Your task to perform on an android device: move an email to a new category in the gmail app Image 0: 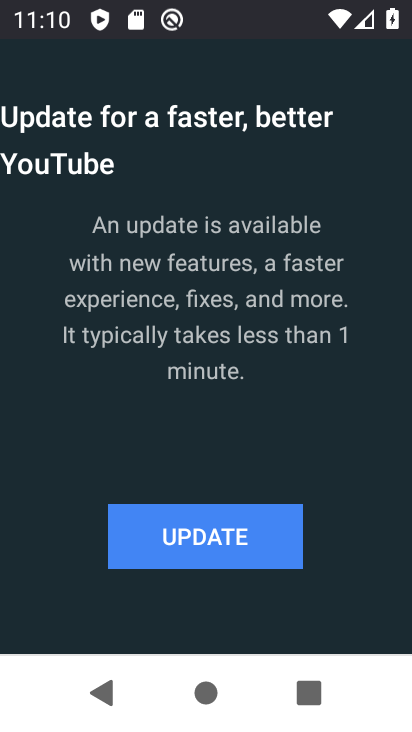
Step 0: press back button
Your task to perform on an android device: move an email to a new category in the gmail app Image 1: 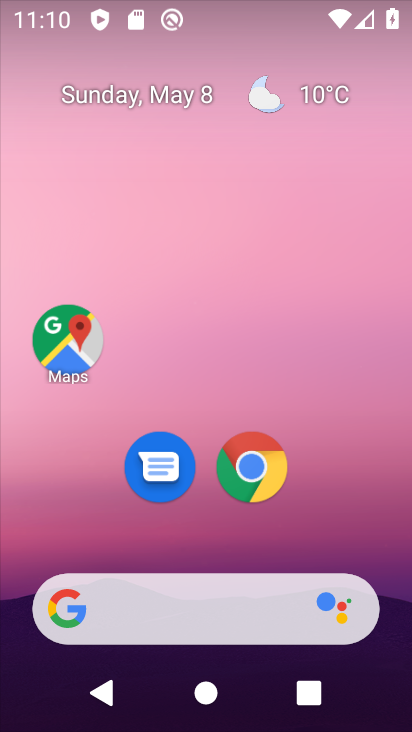
Step 1: drag from (360, 548) to (300, 20)
Your task to perform on an android device: move an email to a new category in the gmail app Image 2: 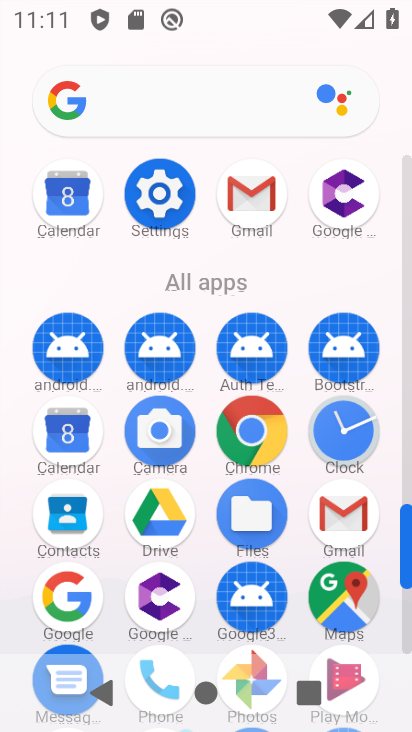
Step 2: click (254, 209)
Your task to perform on an android device: move an email to a new category in the gmail app Image 3: 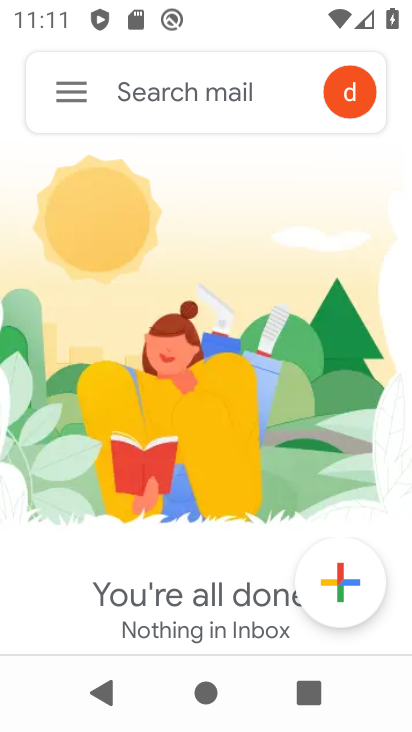
Step 3: click (75, 92)
Your task to perform on an android device: move an email to a new category in the gmail app Image 4: 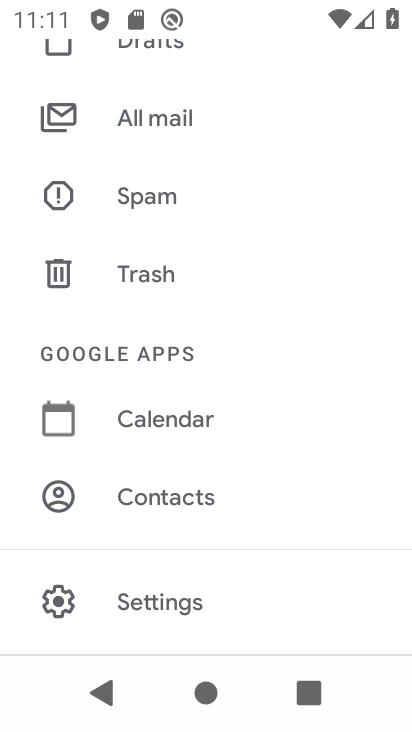
Step 4: click (175, 112)
Your task to perform on an android device: move an email to a new category in the gmail app Image 5: 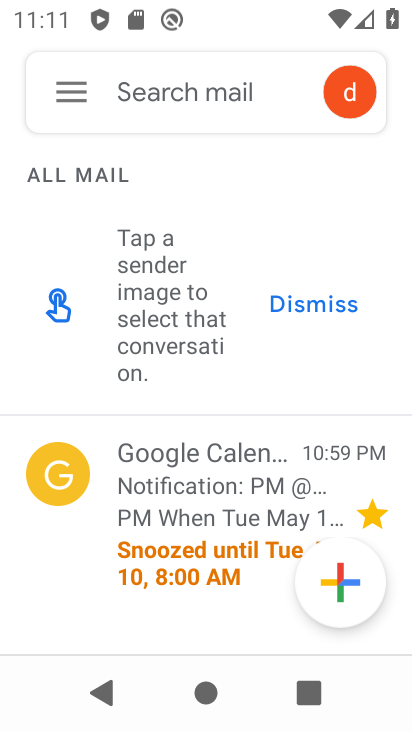
Step 5: click (217, 472)
Your task to perform on an android device: move an email to a new category in the gmail app Image 6: 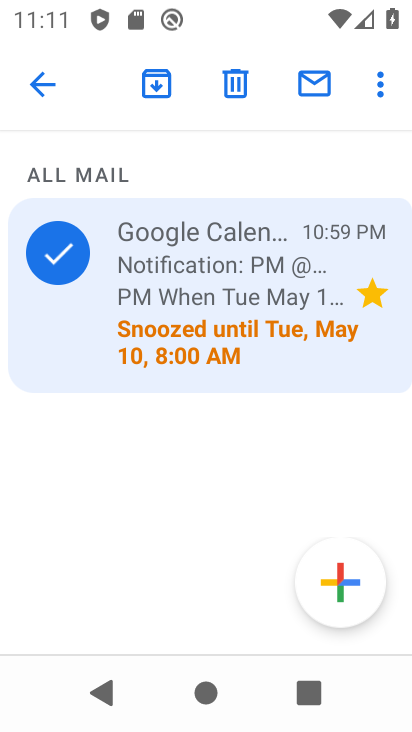
Step 6: click (378, 80)
Your task to perform on an android device: move an email to a new category in the gmail app Image 7: 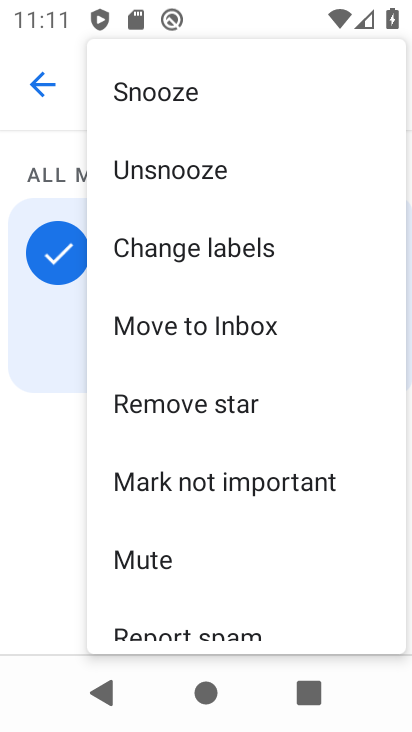
Step 7: click (261, 324)
Your task to perform on an android device: move an email to a new category in the gmail app Image 8: 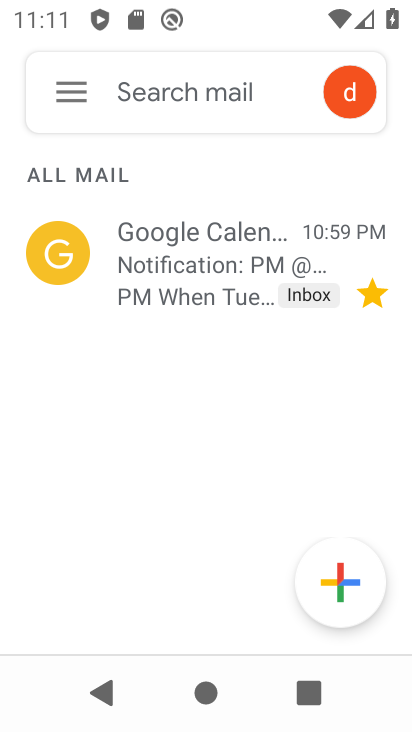
Step 8: task complete